Your task to perform on an android device: Open wifi settings Image 0: 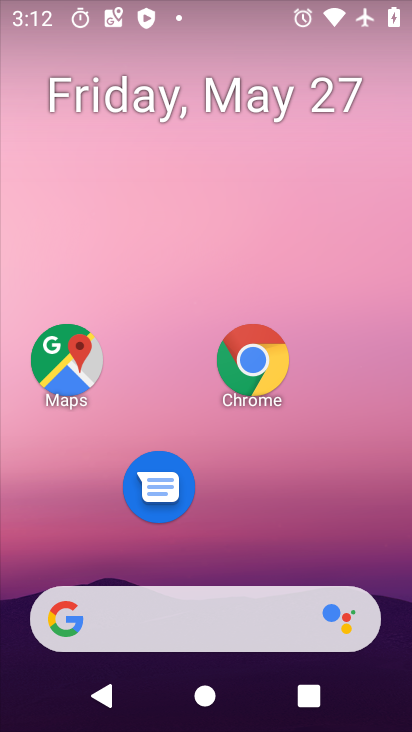
Step 0: drag from (247, 534) to (272, 31)
Your task to perform on an android device: Open wifi settings Image 1: 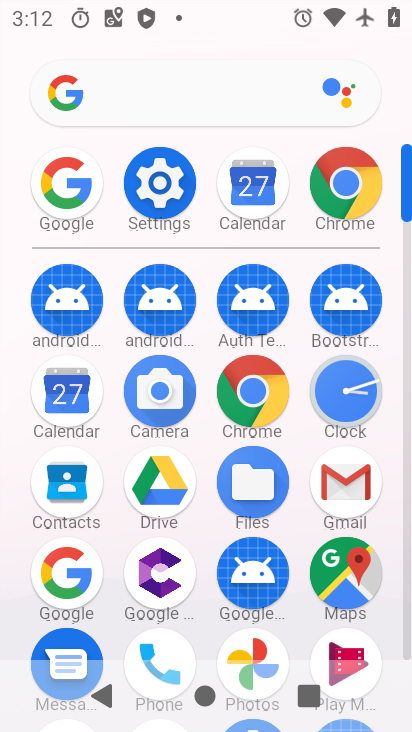
Step 1: click (163, 178)
Your task to perform on an android device: Open wifi settings Image 2: 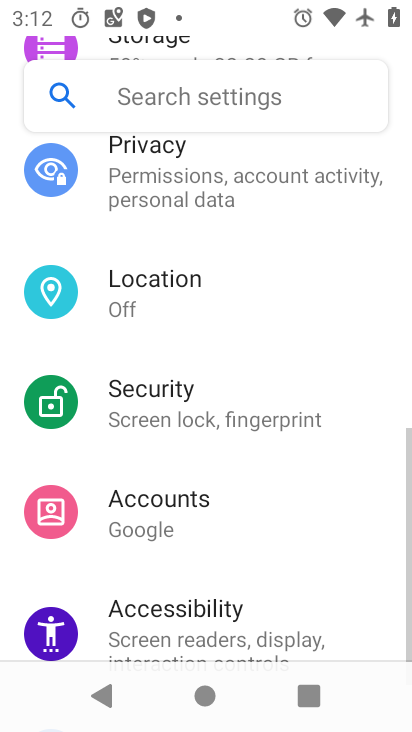
Step 2: drag from (240, 290) to (277, 583)
Your task to perform on an android device: Open wifi settings Image 3: 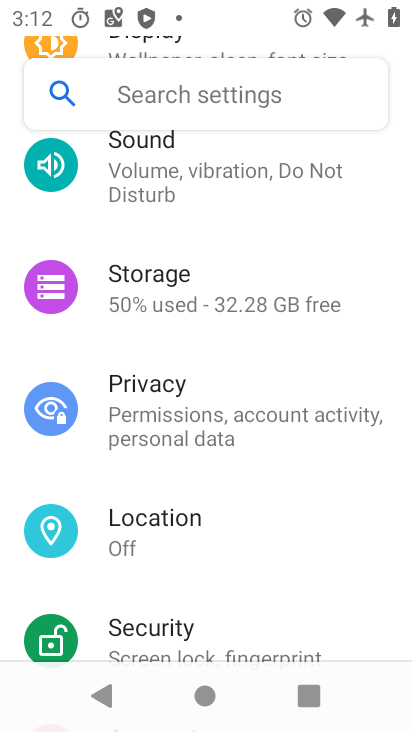
Step 3: drag from (217, 177) to (359, 639)
Your task to perform on an android device: Open wifi settings Image 4: 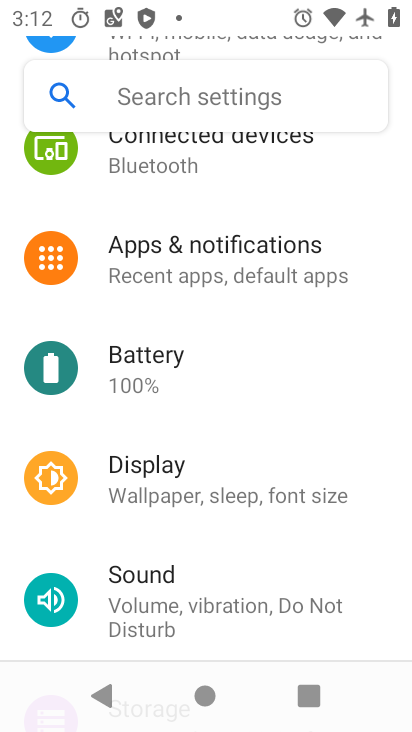
Step 4: drag from (174, 187) to (336, 551)
Your task to perform on an android device: Open wifi settings Image 5: 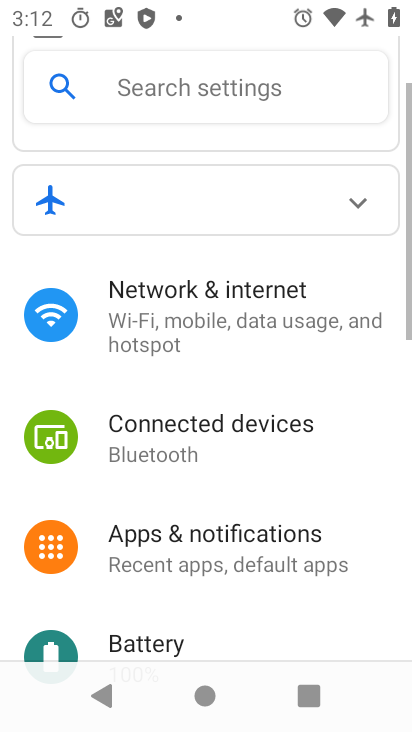
Step 5: click (204, 304)
Your task to perform on an android device: Open wifi settings Image 6: 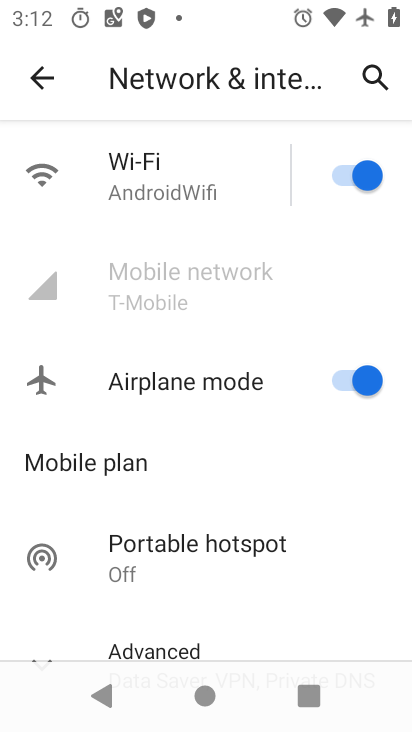
Step 6: click (154, 180)
Your task to perform on an android device: Open wifi settings Image 7: 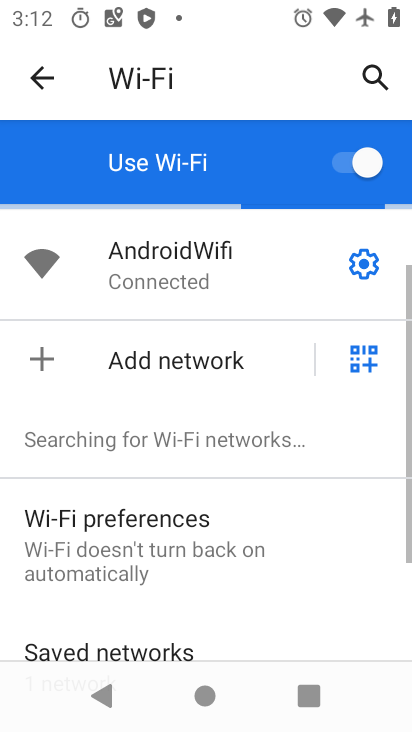
Step 7: click (197, 258)
Your task to perform on an android device: Open wifi settings Image 8: 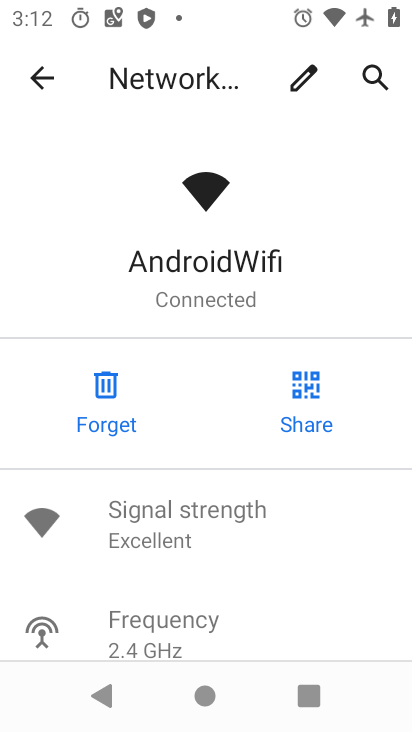
Step 8: task complete